Your task to perform on an android device: open a bookmark in the chrome app Image 0: 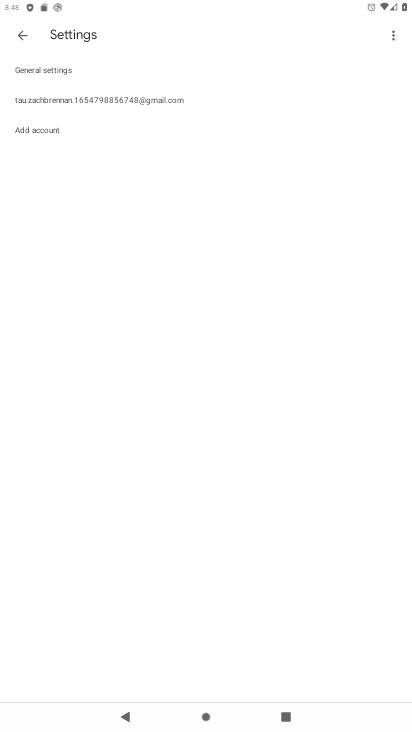
Step 0: press home button
Your task to perform on an android device: open a bookmark in the chrome app Image 1: 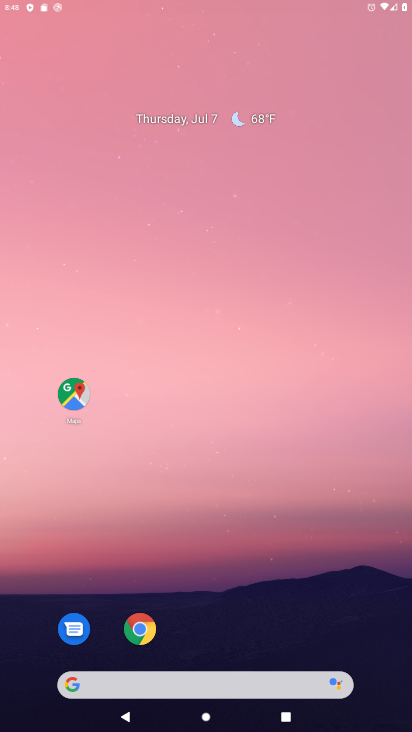
Step 1: drag from (271, 638) to (259, 136)
Your task to perform on an android device: open a bookmark in the chrome app Image 2: 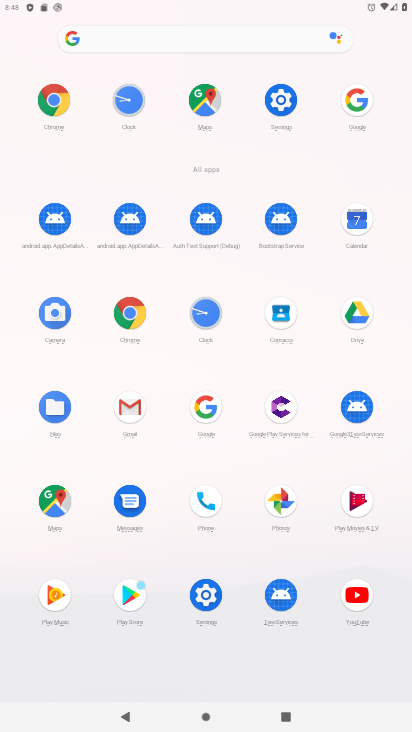
Step 2: click (132, 320)
Your task to perform on an android device: open a bookmark in the chrome app Image 3: 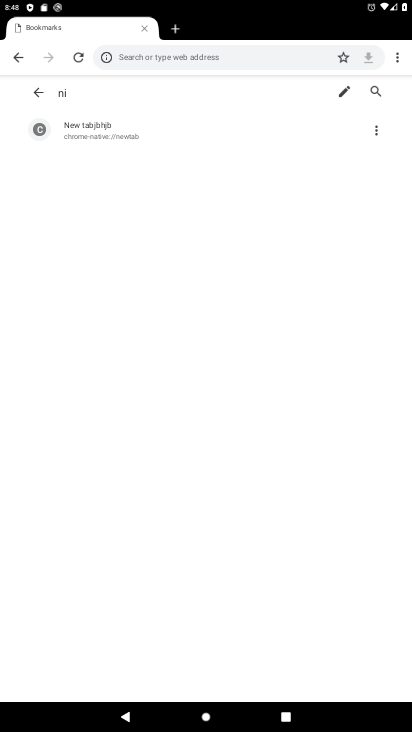
Step 3: click (394, 53)
Your task to perform on an android device: open a bookmark in the chrome app Image 4: 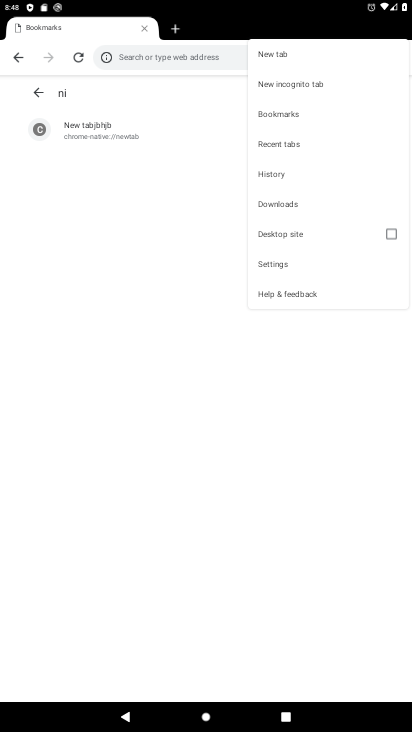
Step 4: click (307, 113)
Your task to perform on an android device: open a bookmark in the chrome app Image 5: 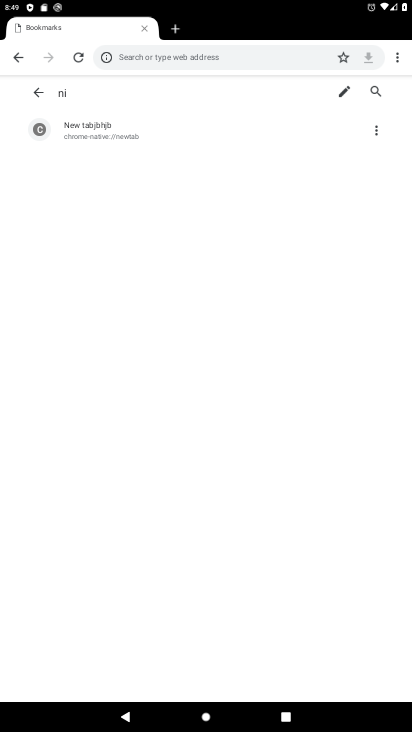
Step 5: task complete